Your task to perform on an android device: Go to location settings Image 0: 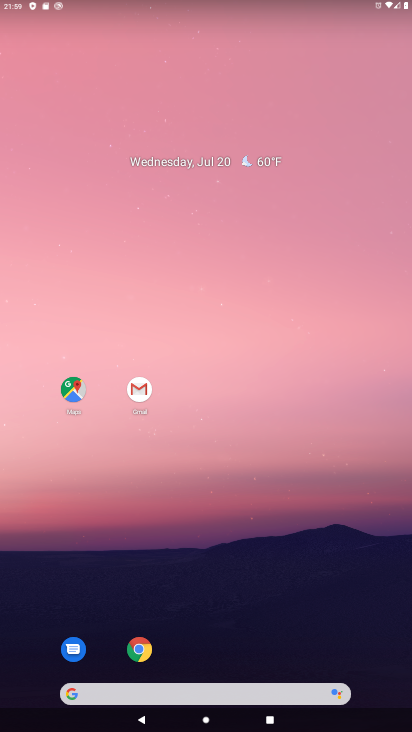
Step 0: drag from (383, 708) to (269, 141)
Your task to perform on an android device: Go to location settings Image 1: 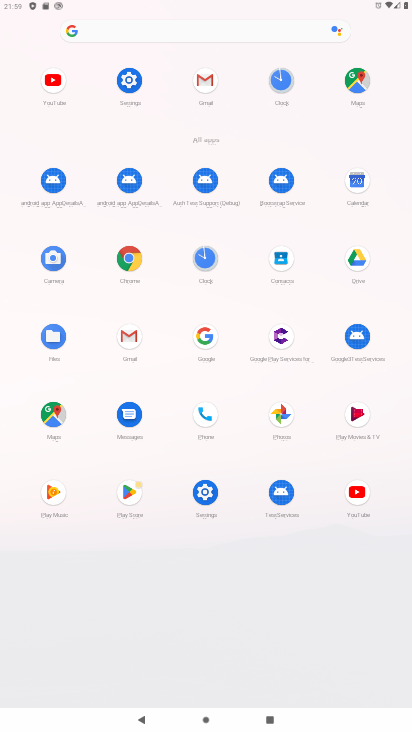
Step 1: click (122, 78)
Your task to perform on an android device: Go to location settings Image 2: 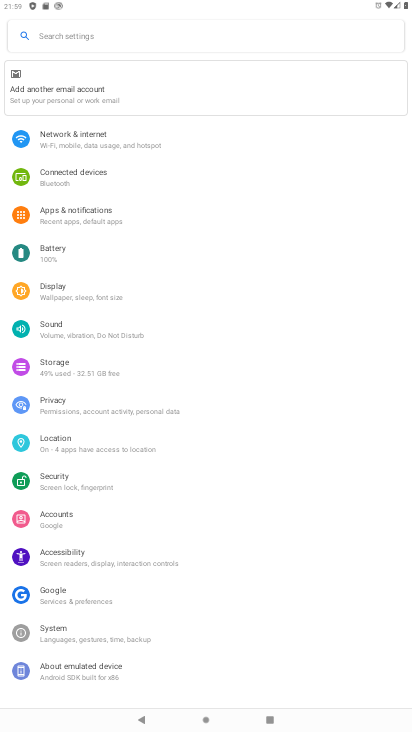
Step 2: click (52, 435)
Your task to perform on an android device: Go to location settings Image 3: 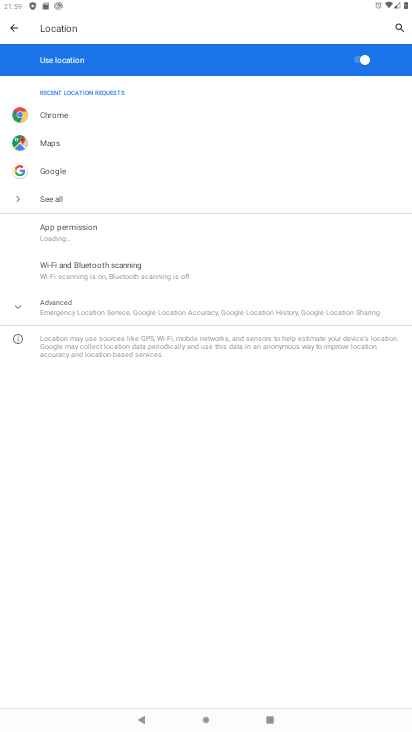
Step 3: click (23, 306)
Your task to perform on an android device: Go to location settings Image 4: 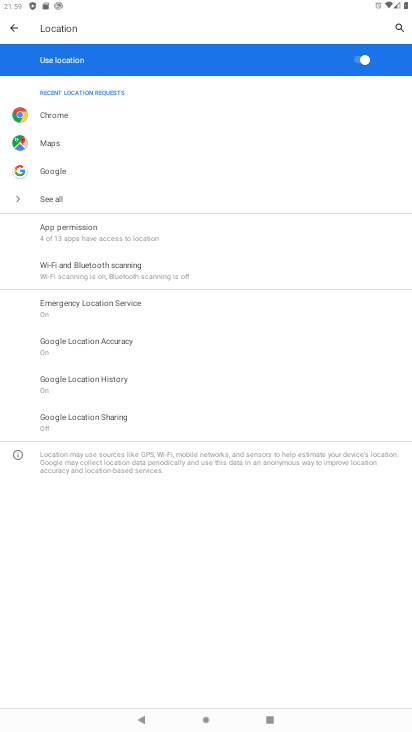
Step 4: task complete